Your task to perform on an android device: remove spam from my inbox in the gmail app Image 0: 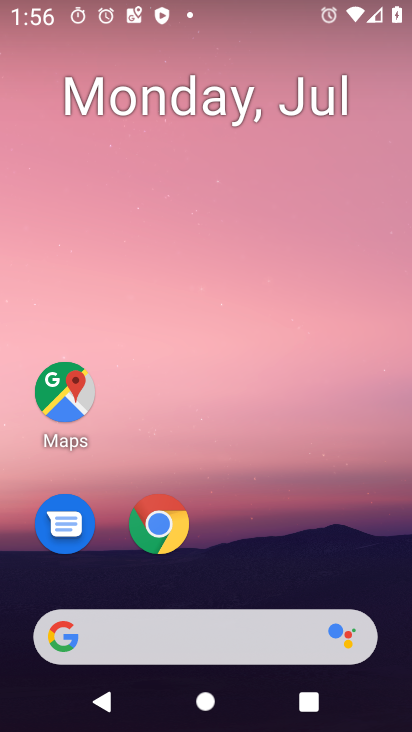
Step 0: press home button
Your task to perform on an android device: remove spam from my inbox in the gmail app Image 1: 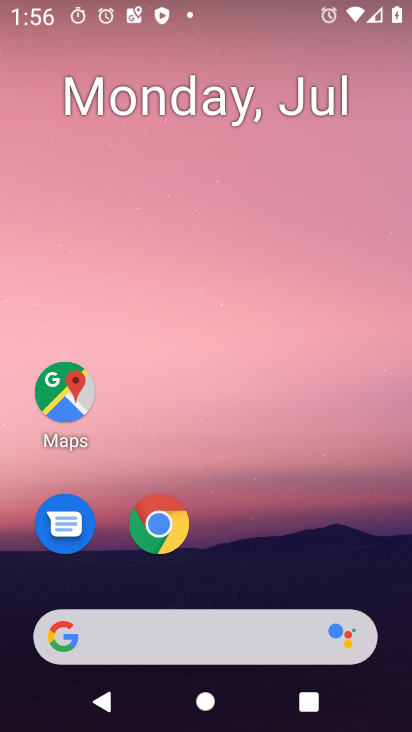
Step 1: drag from (264, 571) to (187, 50)
Your task to perform on an android device: remove spam from my inbox in the gmail app Image 2: 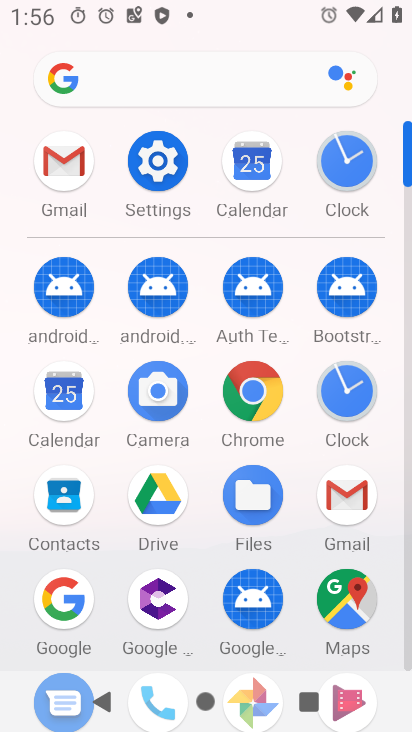
Step 2: click (60, 171)
Your task to perform on an android device: remove spam from my inbox in the gmail app Image 3: 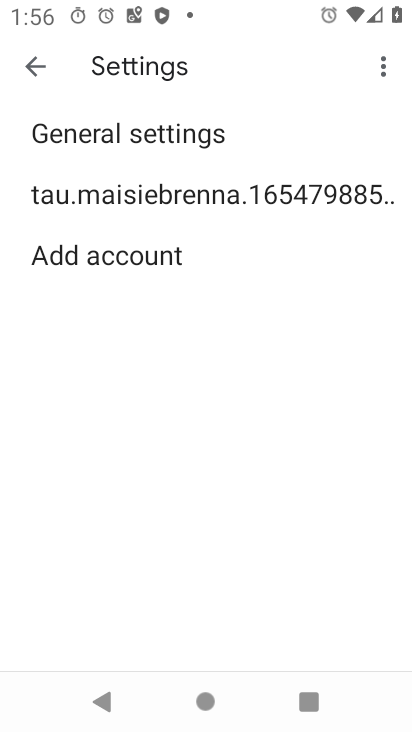
Step 3: click (109, 193)
Your task to perform on an android device: remove spam from my inbox in the gmail app Image 4: 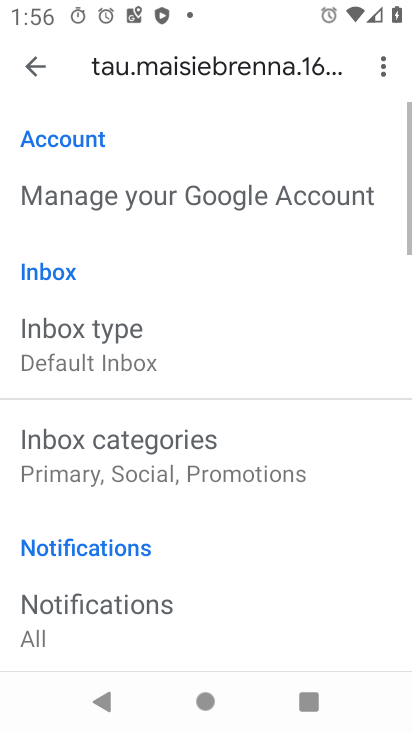
Step 4: click (30, 73)
Your task to perform on an android device: remove spam from my inbox in the gmail app Image 5: 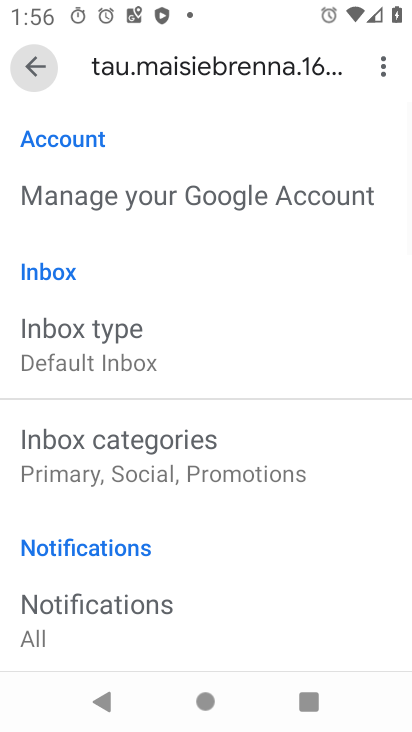
Step 5: click (30, 73)
Your task to perform on an android device: remove spam from my inbox in the gmail app Image 6: 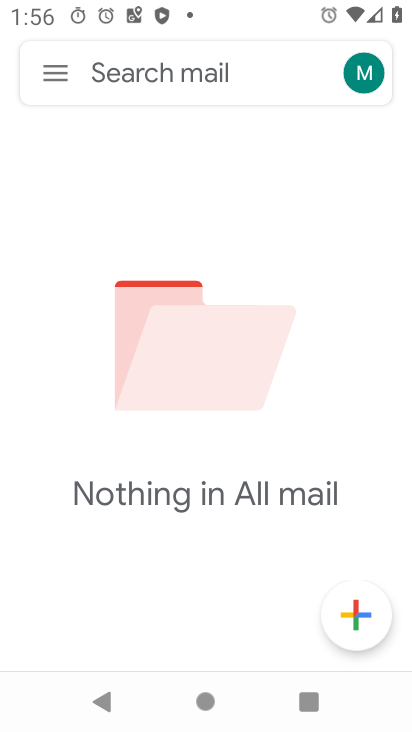
Step 6: task complete